Your task to perform on an android device: Open Google Chrome Image 0: 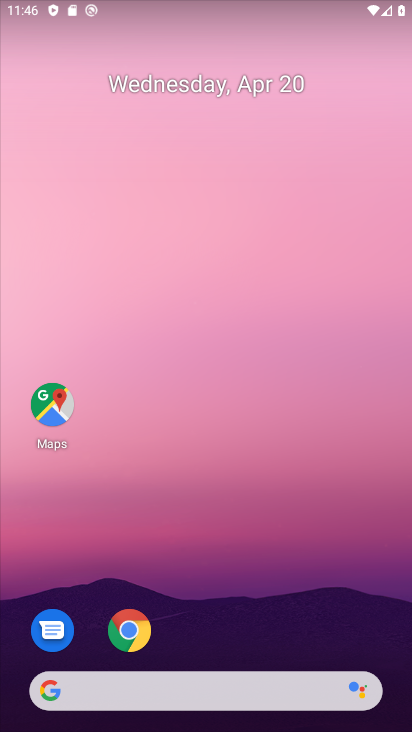
Step 0: drag from (150, 694) to (301, 135)
Your task to perform on an android device: Open Google Chrome Image 1: 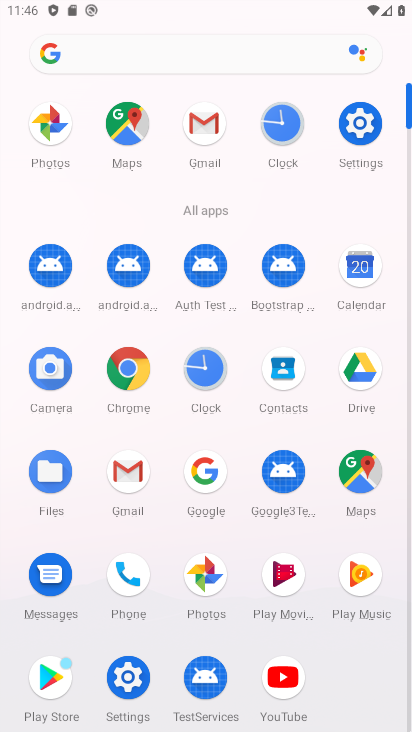
Step 1: click (132, 376)
Your task to perform on an android device: Open Google Chrome Image 2: 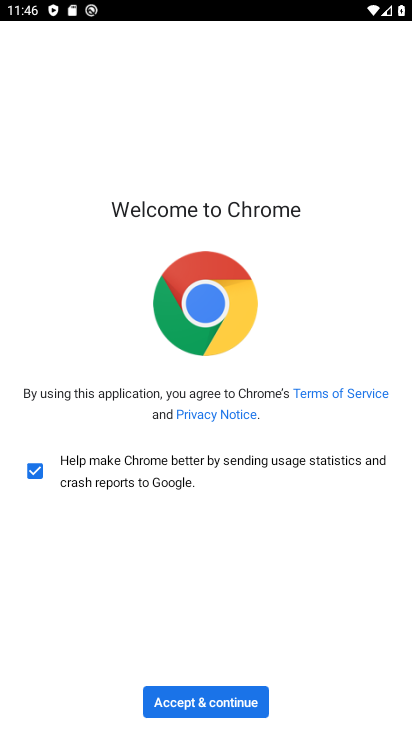
Step 2: click (224, 702)
Your task to perform on an android device: Open Google Chrome Image 3: 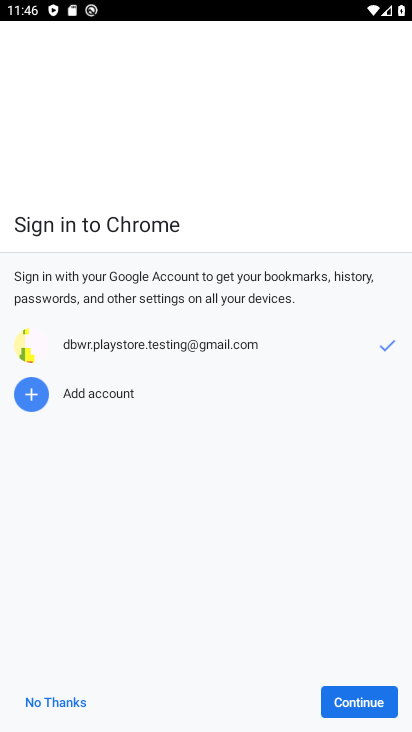
Step 3: click (370, 709)
Your task to perform on an android device: Open Google Chrome Image 4: 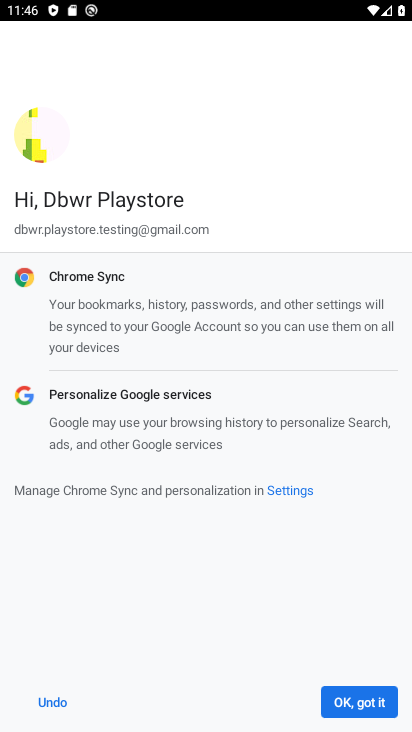
Step 4: click (373, 700)
Your task to perform on an android device: Open Google Chrome Image 5: 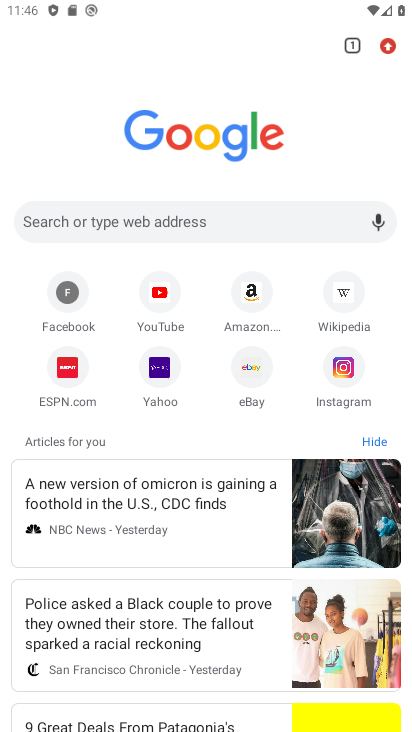
Step 5: task complete